Your task to perform on an android device: open the mobile data screen to see how much data has been used Image 0: 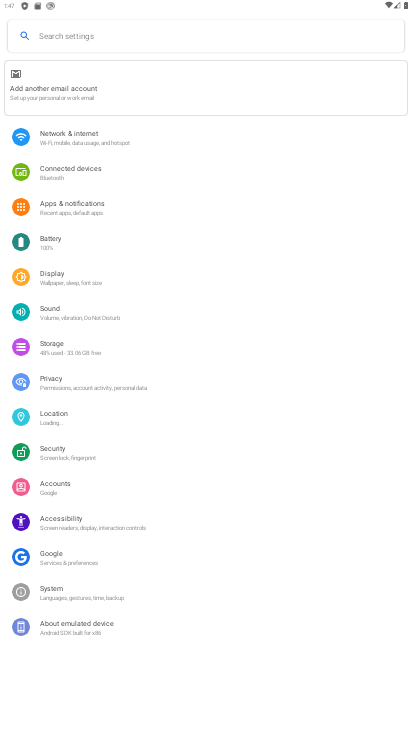
Step 0: press home button
Your task to perform on an android device: open the mobile data screen to see how much data has been used Image 1: 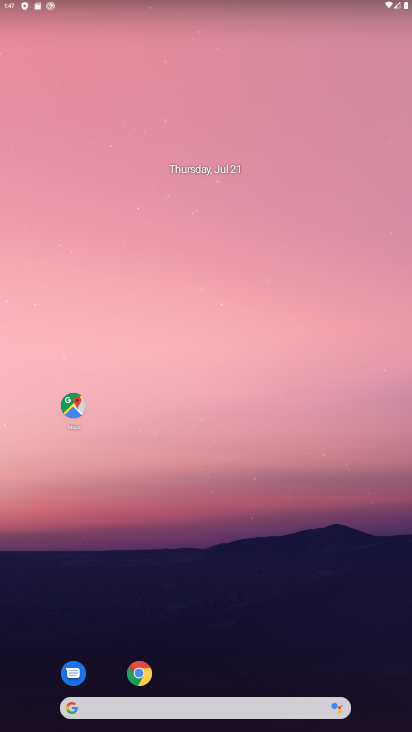
Step 1: drag from (216, 200) to (169, 49)
Your task to perform on an android device: open the mobile data screen to see how much data has been used Image 2: 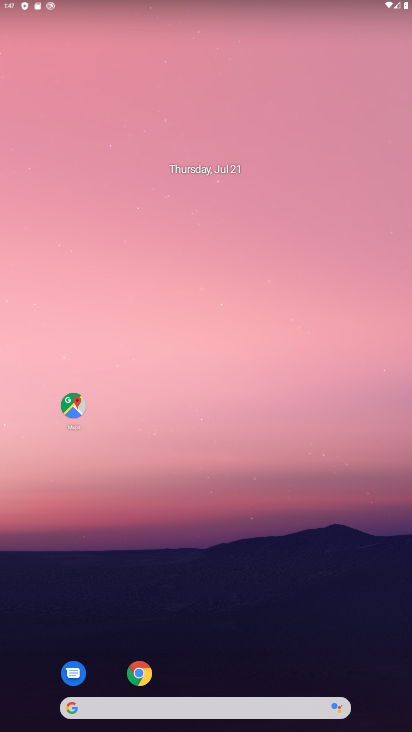
Step 2: drag from (163, 702) to (264, 157)
Your task to perform on an android device: open the mobile data screen to see how much data has been used Image 3: 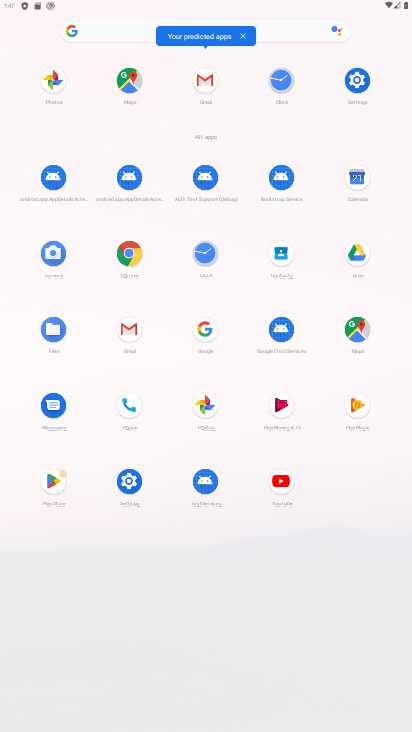
Step 3: click (356, 79)
Your task to perform on an android device: open the mobile data screen to see how much data has been used Image 4: 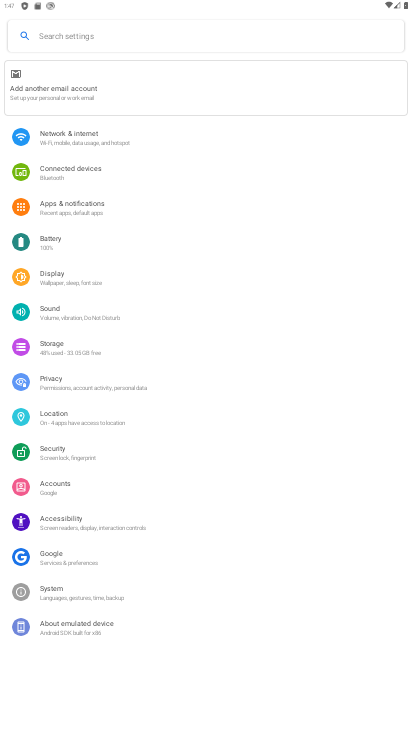
Step 4: click (96, 144)
Your task to perform on an android device: open the mobile data screen to see how much data has been used Image 5: 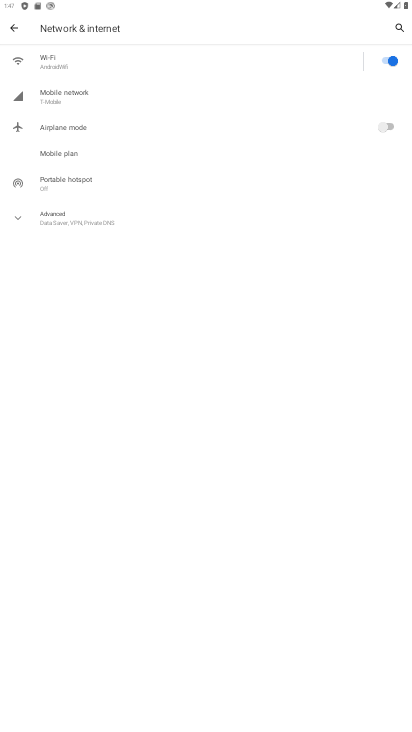
Step 5: click (75, 90)
Your task to perform on an android device: open the mobile data screen to see how much data has been used Image 6: 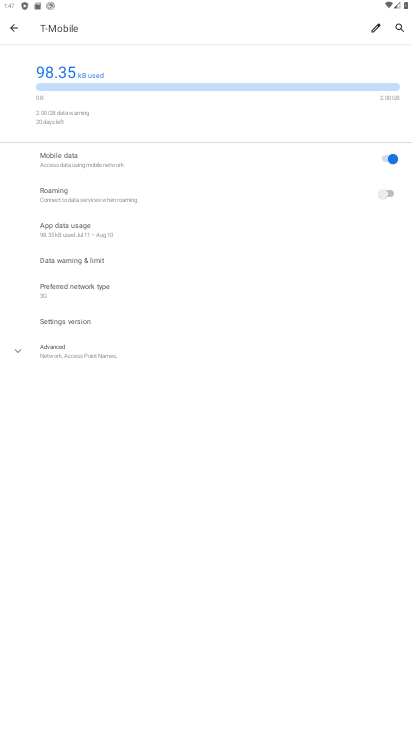
Step 6: task complete